Your task to perform on an android device: Go to Reddit.com Image 0: 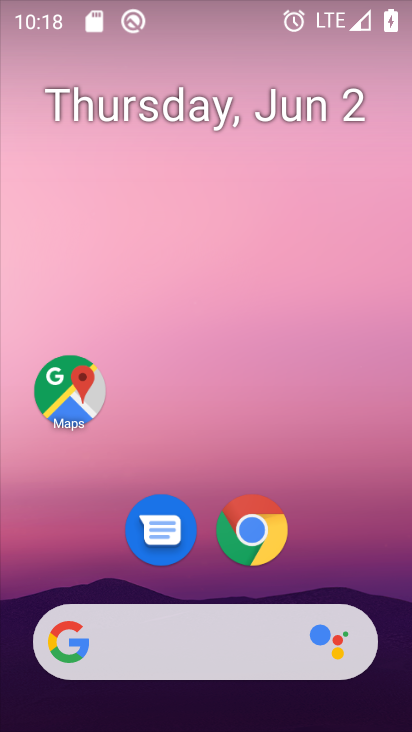
Step 0: drag from (192, 592) to (228, 319)
Your task to perform on an android device: Go to Reddit.com Image 1: 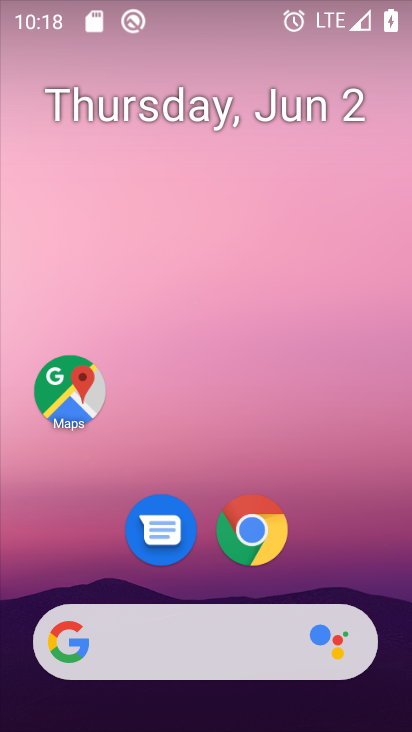
Step 1: drag from (190, 598) to (182, 188)
Your task to perform on an android device: Go to Reddit.com Image 2: 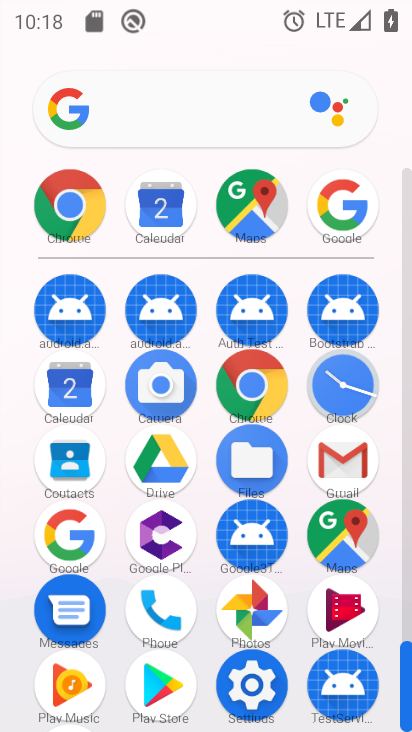
Step 2: click (65, 532)
Your task to perform on an android device: Go to Reddit.com Image 3: 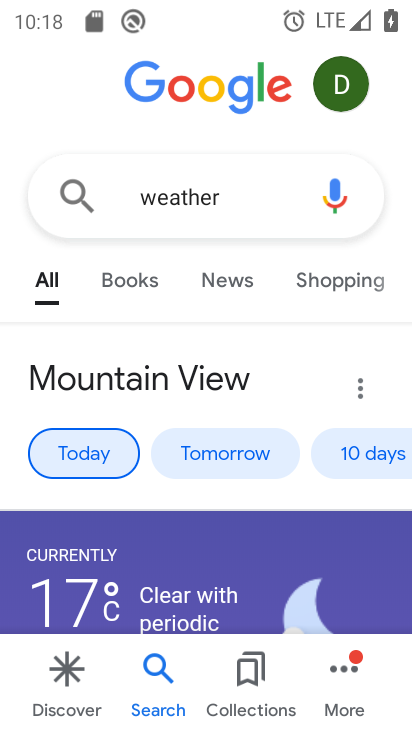
Step 3: drag from (181, 196) to (115, 196)
Your task to perform on an android device: Go to Reddit.com Image 4: 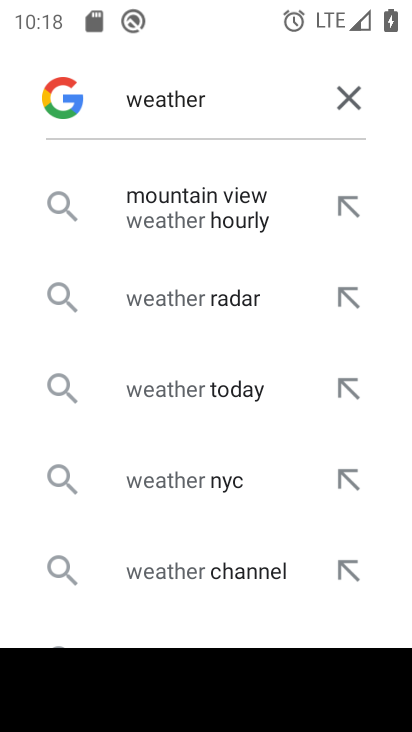
Step 4: click (347, 102)
Your task to perform on an android device: Go to Reddit.com Image 5: 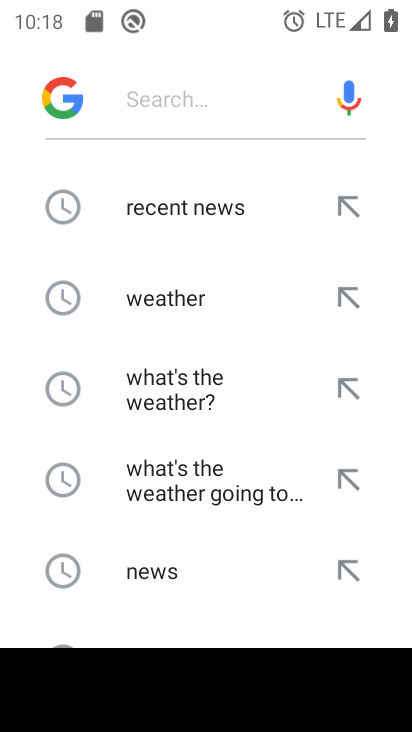
Step 5: drag from (201, 523) to (209, 145)
Your task to perform on an android device: Go to Reddit.com Image 6: 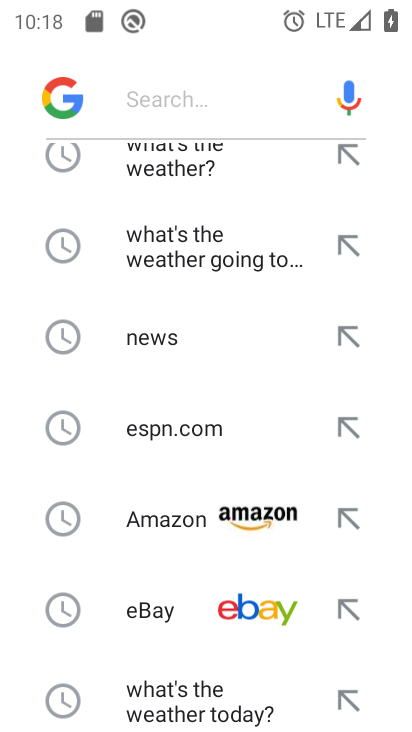
Step 6: drag from (141, 612) to (180, 270)
Your task to perform on an android device: Go to Reddit.com Image 7: 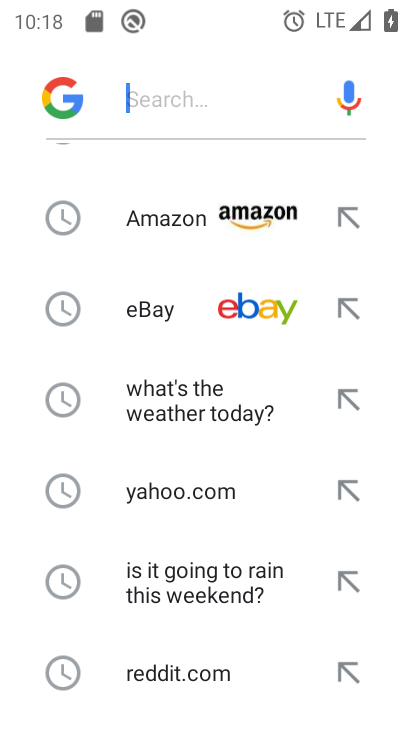
Step 7: click (170, 672)
Your task to perform on an android device: Go to Reddit.com Image 8: 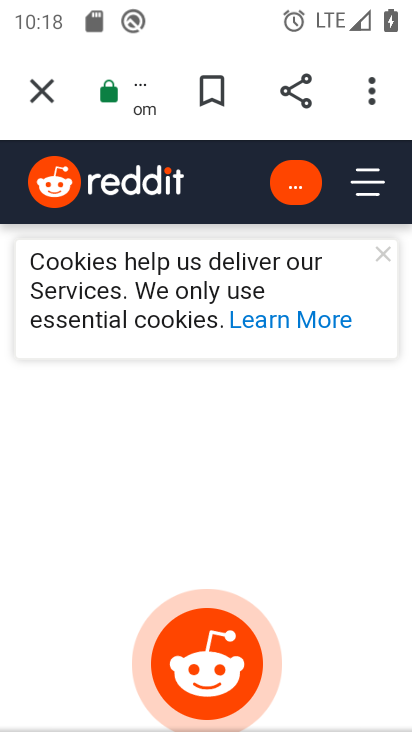
Step 8: task complete